Your task to perform on an android device: find which apps use the phone's location Image 0: 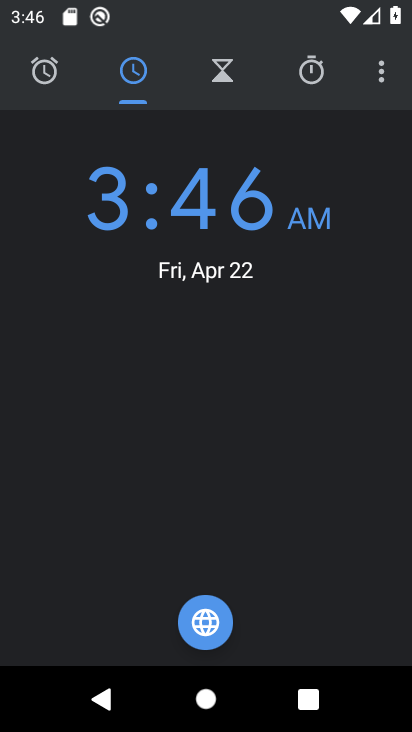
Step 0: press home button
Your task to perform on an android device: find which apps use the phone's location Image 1: 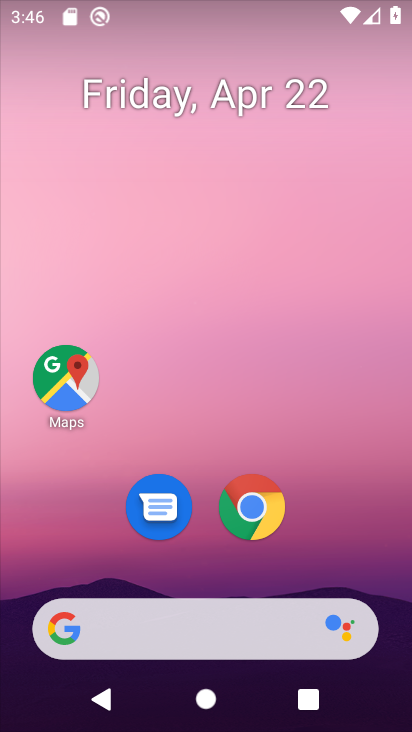
Step 1: drag from (386, 600) to (330, 143)
Your task to perform on an android device: find which apps use the phone's location Image 2: 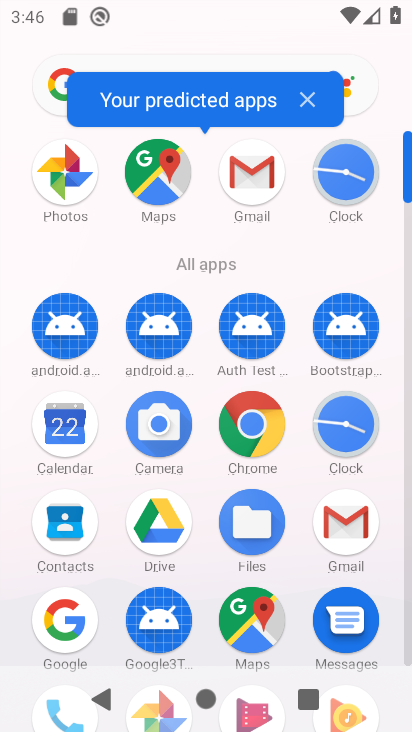
Step 2: click (408, 645)
Your task to perform on an android device: find which apps use the phone's location Image 3: 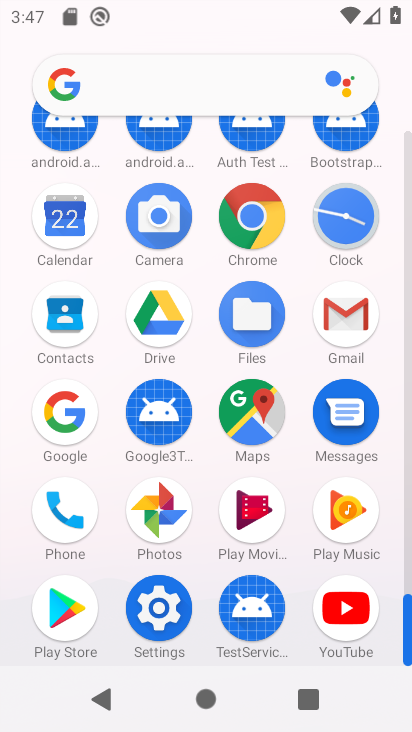
Step 3: click (153, 602)
Your task to perform on an android device: find which apps use the phone's location Image 4: 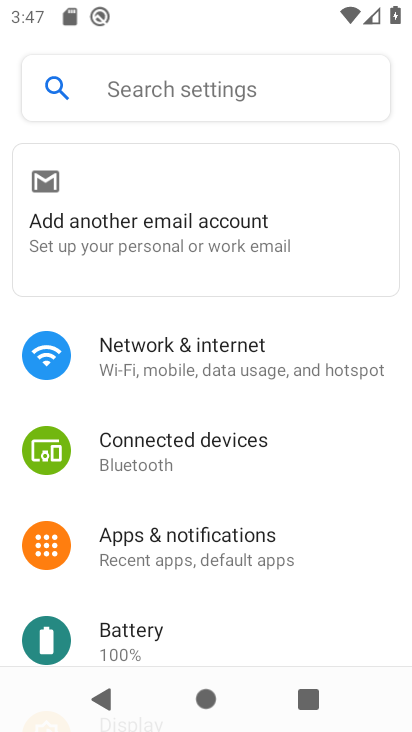
Step 4: drag from (315, 604) to (391, 226)
Your task to perform on an android device: find which apps use the phone's location Image 5: 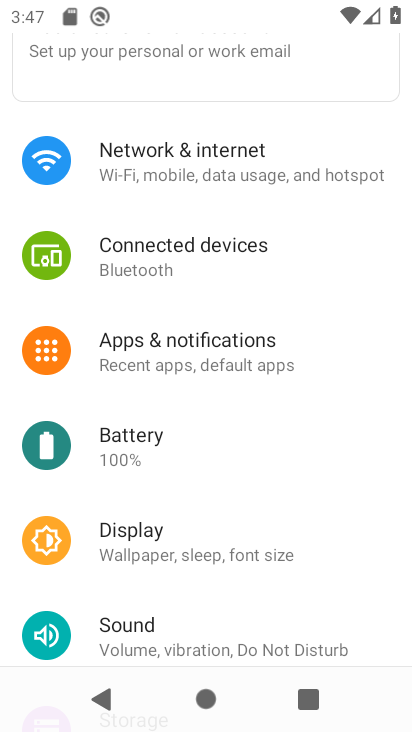
Step 5: drag from (337, 537) to (367, 102)
Your task to perform on an android device: find which apps use the phone's location Image 6: 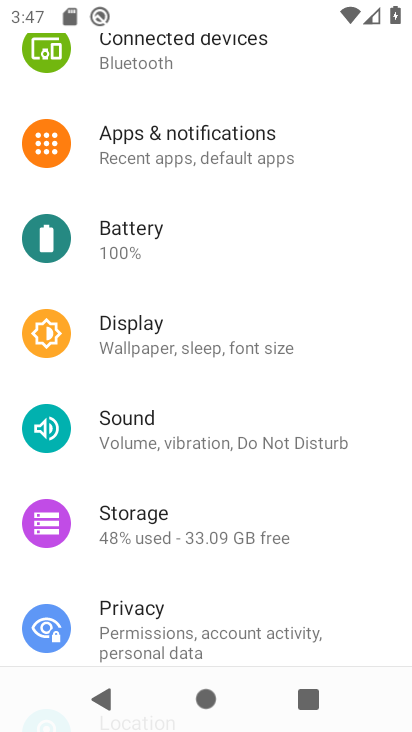
Step 6: drag from (329, 607) to (370, 252)
Your task to perform on an android device: find which apps use the phone's location Image 7: 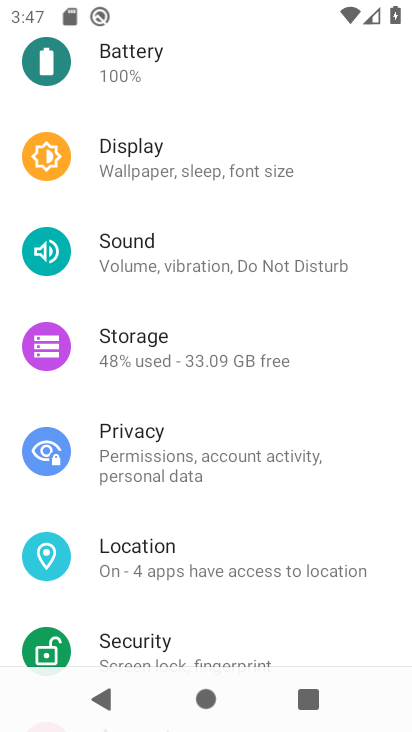
Step 7: click (151, 552)
Your task to perform on an android device: find which apps use the phone's location Image 8: 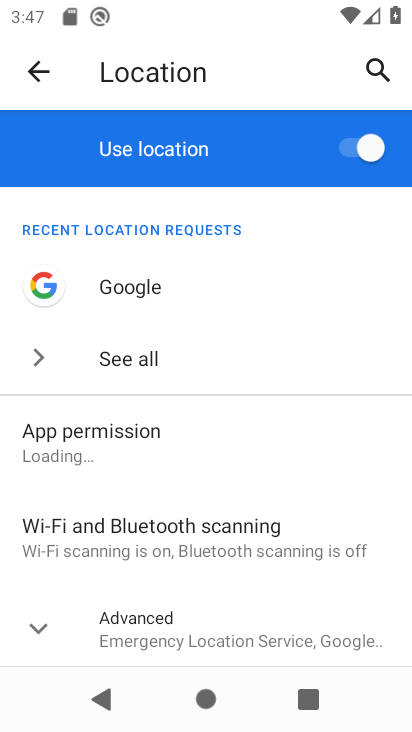
Step 8: click (31, 635)
Your task to perform on an android device: find which apps use the phone's location Image 9: 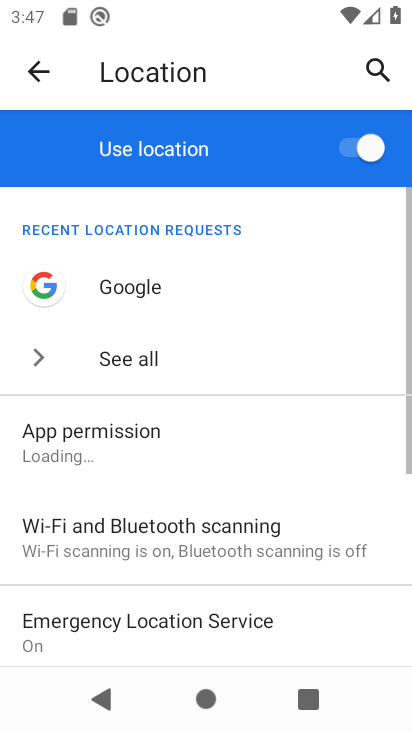
Step 9: task complete